Your task to perform on an android device: turn off notifications in google photos Image 0: 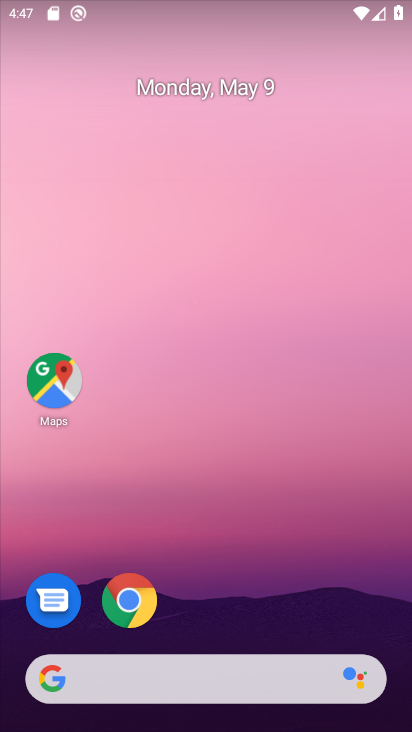
Step 0: drag from (253, 648) to (300, 0)
Your task to perform on an android device: turn off notifications in google photos Image 1: 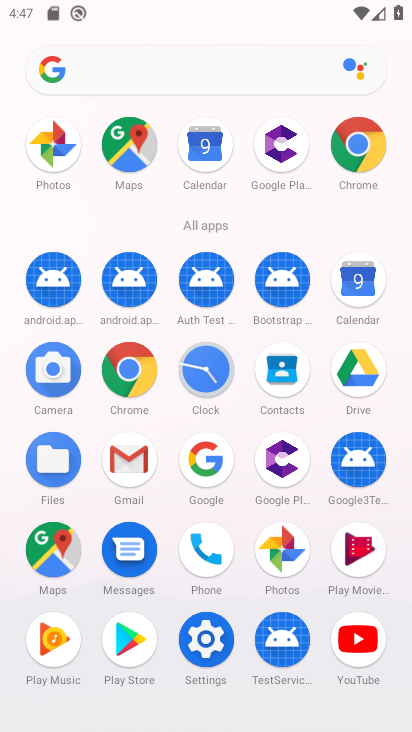
Step 1: click (287, 572)
Your task to perform on an android device: turn off notifications in google photos Image 2: 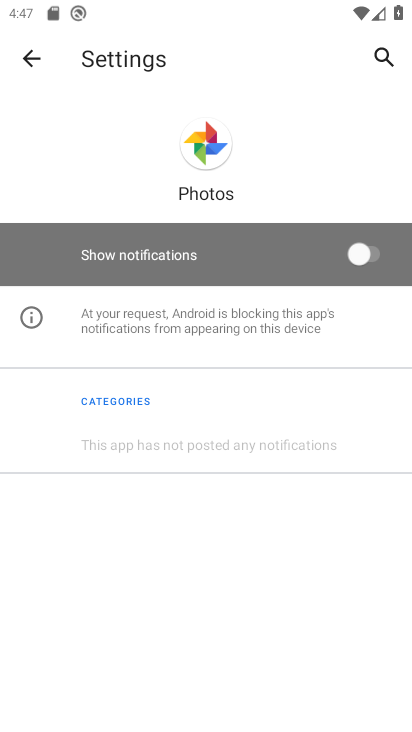
Step 2: task complete